Your task to perform on an android device: Go to wifi settings Image 0: 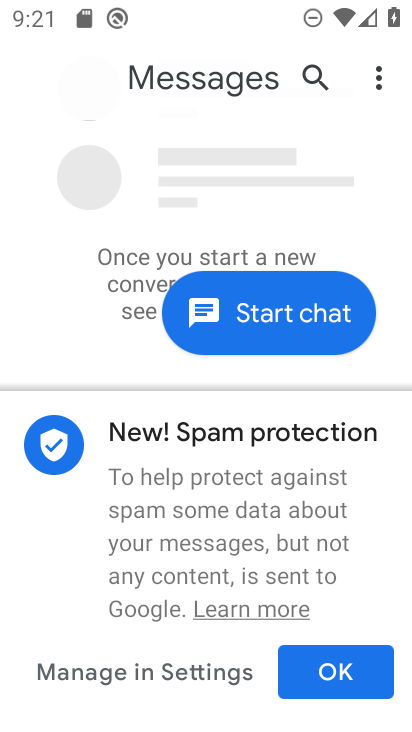
Step 0: press home button
Your task to perform on an android device: Go to wifi settings Image 1: 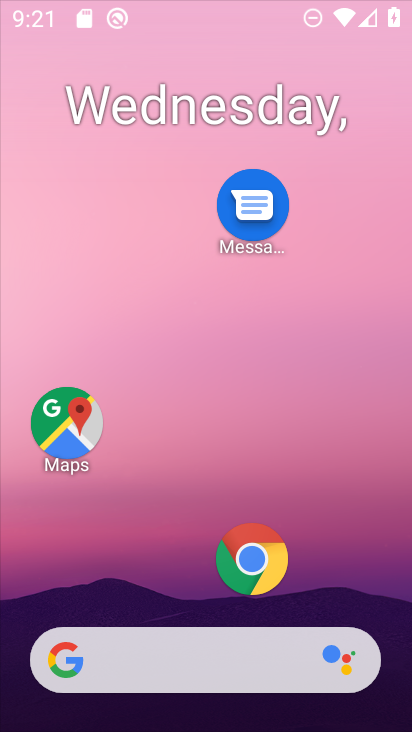
Step 1: drag from (226, 652) to (280, 179)
Your task to perform on an android device: Go to wifi settings Image 2: 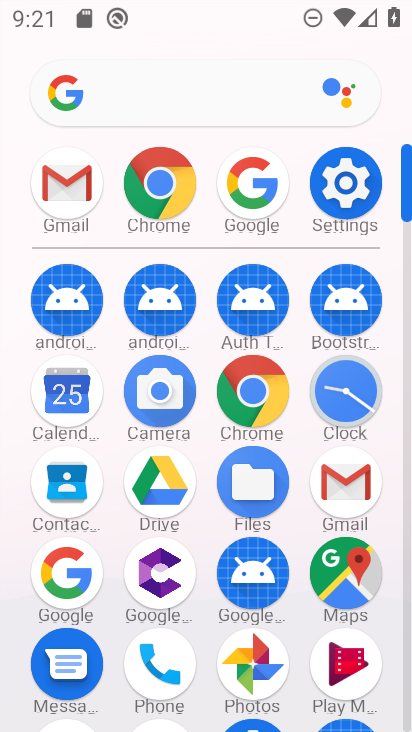
Step 2: click (342, 193)
Your task to perform on an android device: Go to wifi settings Image 3: 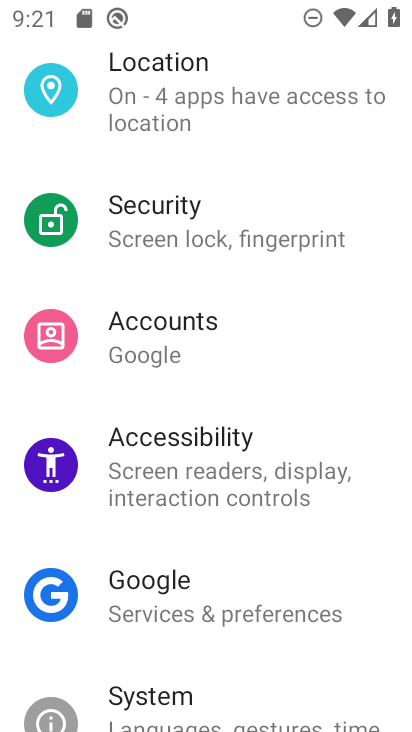
Step 3: drag from (161, 268) to (161, 620)
Your task to perform on an android device: Go to wifi settings Image 4: 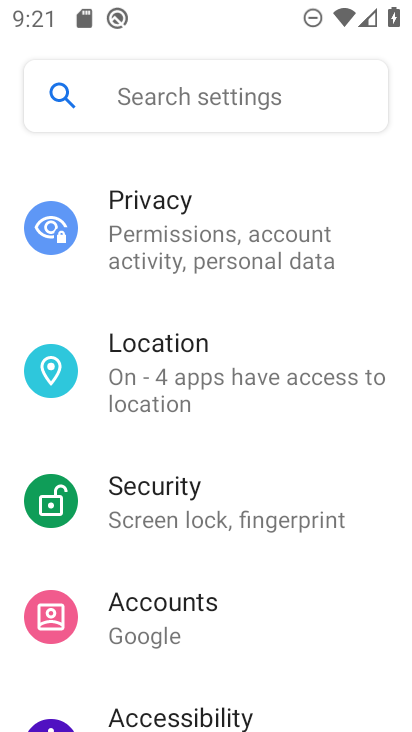
Step 4: drag from (176, 330) to (164, 643)
Your task to perform on an android device: Go to wifi settings Image 5: 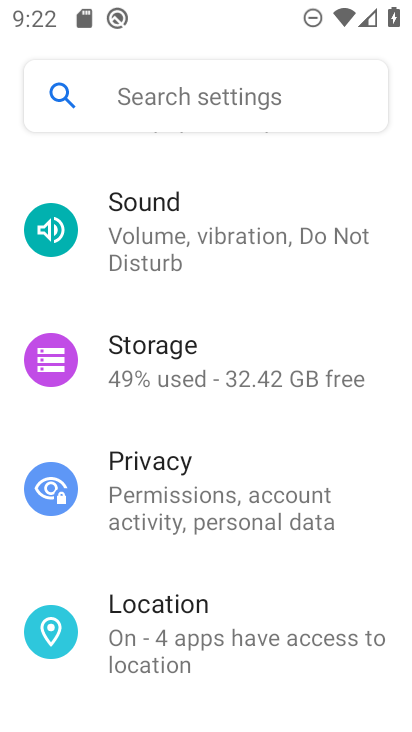
Step 5: drag from (246, 389) to (168, 712)
Your task to perform on an android device: Go to wifi settings Image 6: 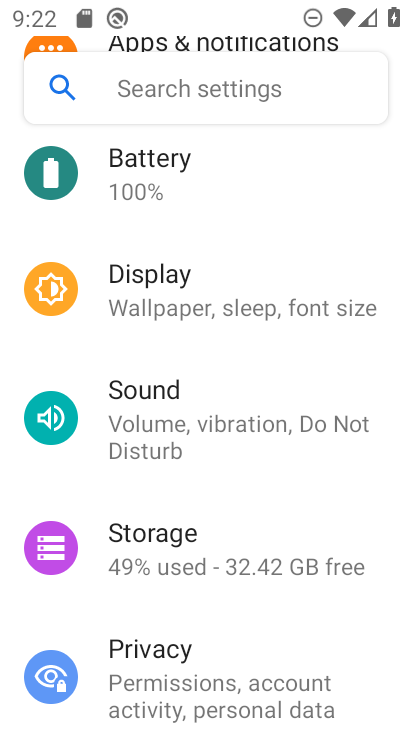
Step 6: drag from (202, 274) to (163, 702)
Your task to perform on an android device: Go to wifi settings Image 7: 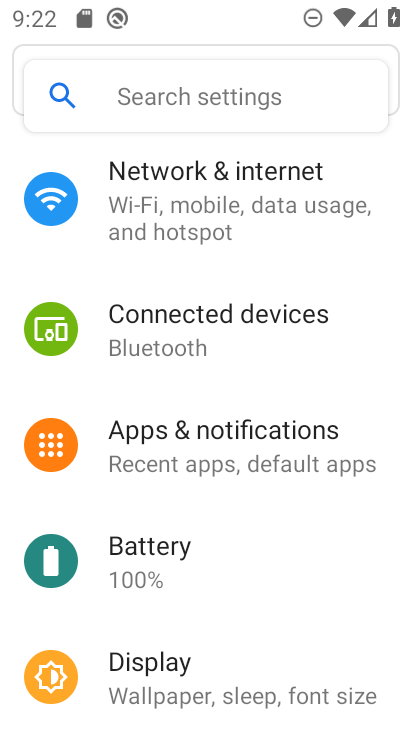
Step 7: drag from (224, 311) to (194, 729)
Your task to perform on an android device: Go to wifi settings Image 8: 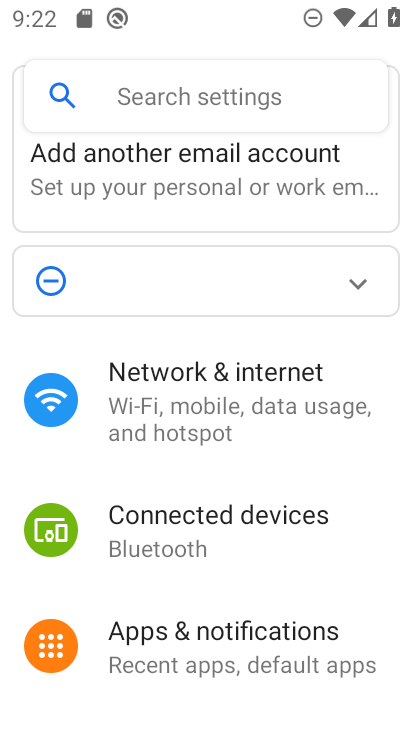
Step 8: click (254, 426)
Your task to perform on an android device: Go to wifi settings Image 9: 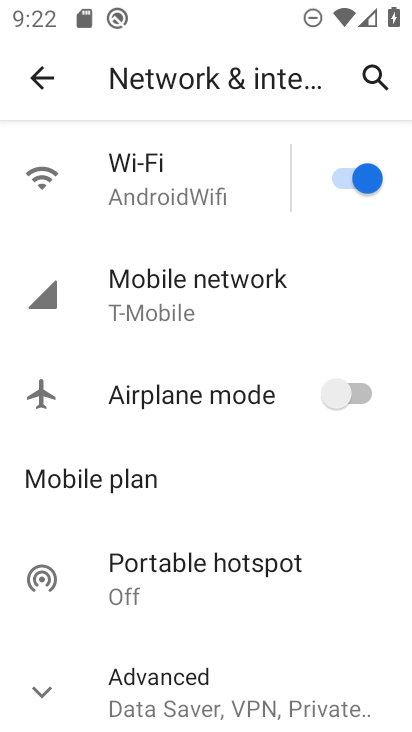
Step 9: click (171, 200)
Your task to perform on an android device: Go to wifi settings Image 10: 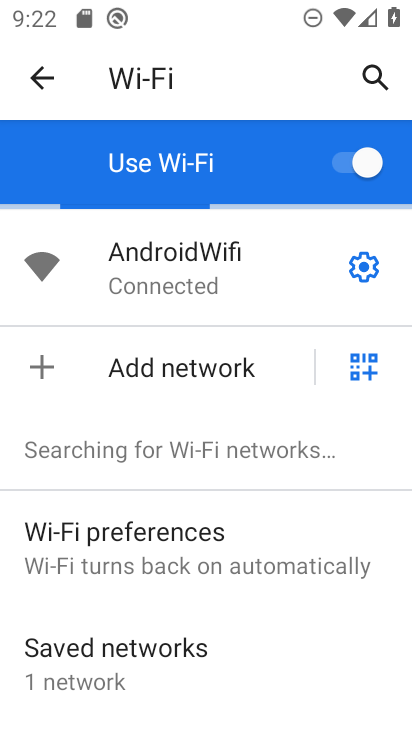
Step 10: task complete